Your task to perform on an android device: search for starred emails in the gmail app Image 0: 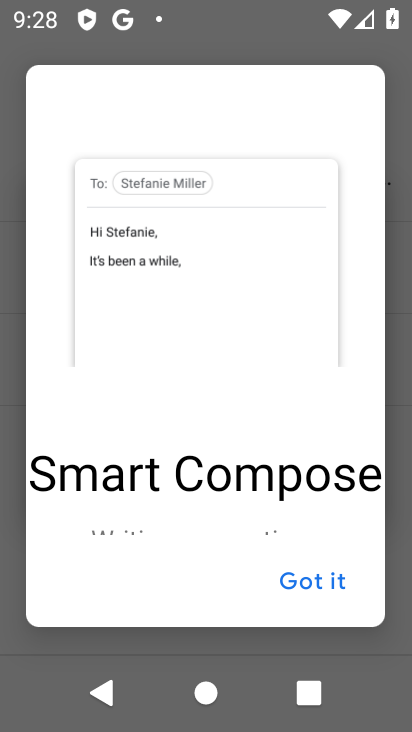
Step 0: press home button
Your task to perform on an android device: search for starred emails in the gmail app Image 1: 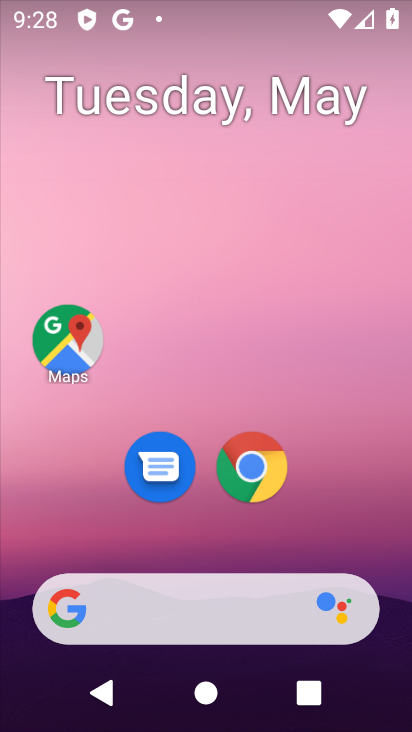
Step 1: drag from (353, 544) to (271, 5)
Your task to perform on an android device: search for starred emails in the gmail app Image 2: 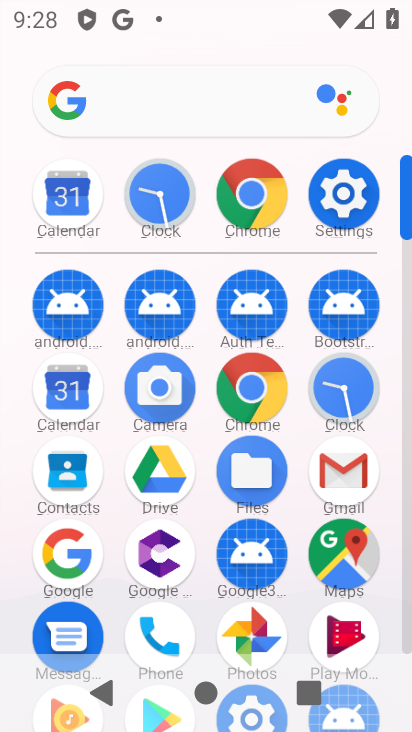
Step 2: drag from (14, 564) to (19, 164)
Your task to perform on an android device: search for starred emails in the gmail app Image 3: 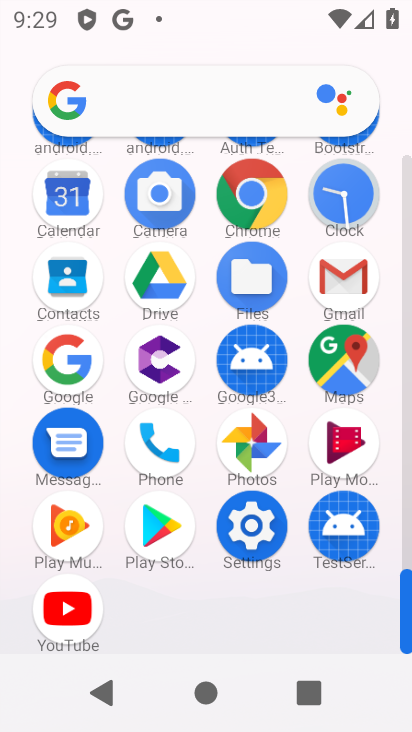
Step 3: click (342, 274)
Your task to perform on an android device: search for starred emails in the gmail app Image 4: 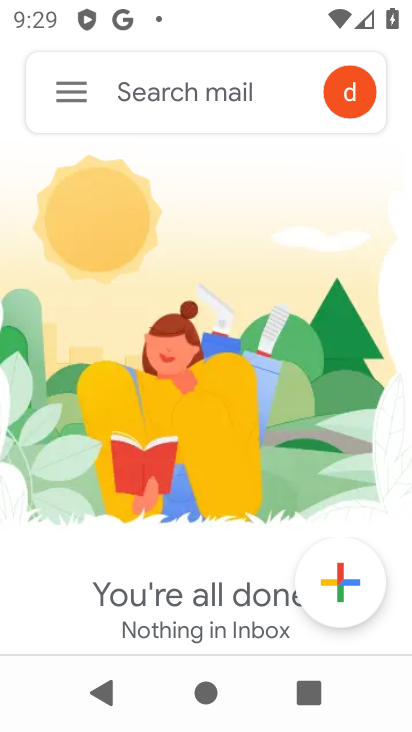
Step 4: click (65, 83)
Your task to perform on an android device: search for starred emails in the gmail app Image 5: 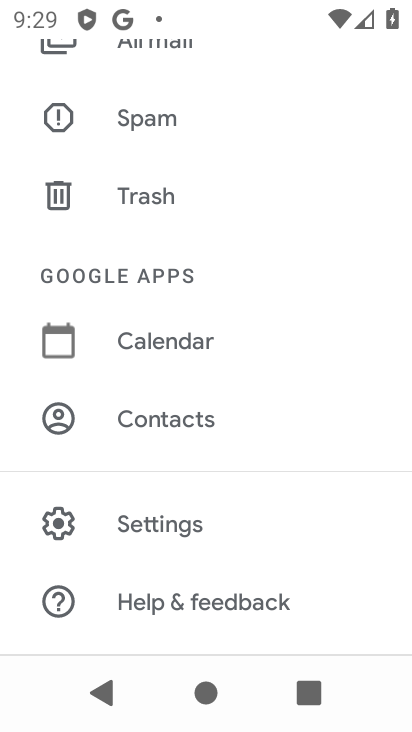
Step 5: drag from (249, 138) to (247, 624)
Your task to perform on an android device: search for starred emails in the gmail app Image 6: 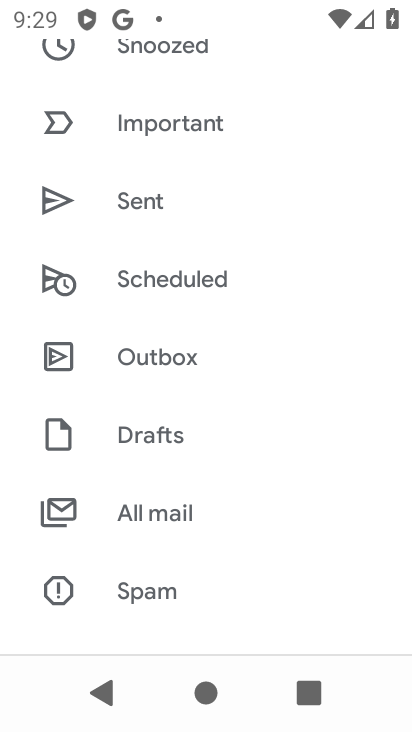
Step 6: drag from (272, 144) to (272, 554)
Your task to perform on an android device: search for starred emails in the gmail app Image 7: 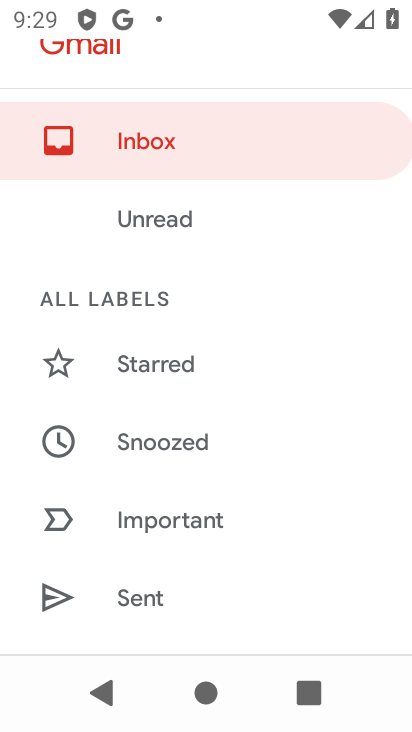
Step 7: click (189, 365)
Your task to perform on an android device: search for starred emails in the gmail app Image 8: 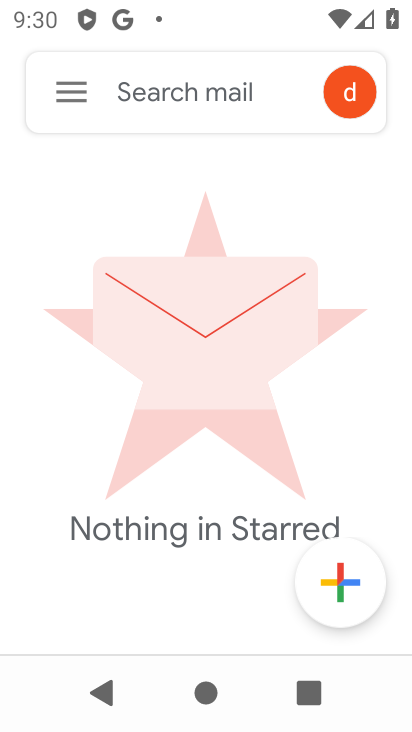
Step 8: task complete